Your task to perform on an android device: Open Youtube and go to "Your channel" Image 0: 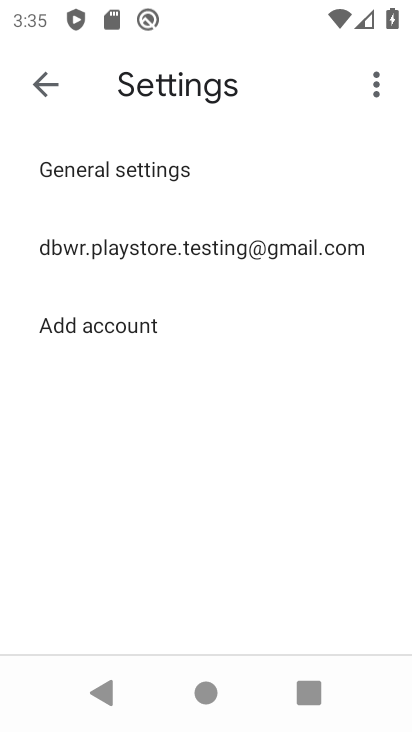
Step 0: press home button
Your task to perform on an android device: Open Youtube and go to "Your channel" Image 1: 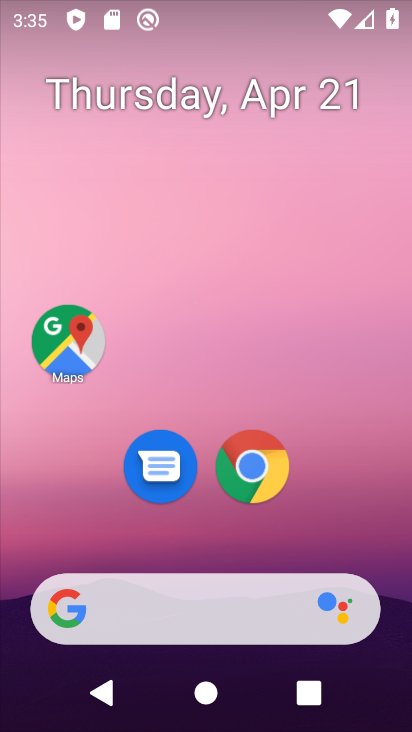
Step 1: drag from (229, 553) to (226, 160)
Your task to perform on an android device: Open Youtube and go to "Your channel" Image 2: 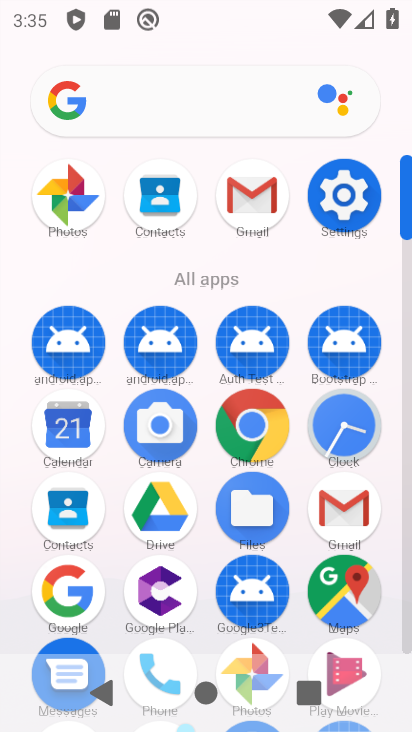
Step 2: drag from (199, 559) to (190, 136)
Your task to perform on an android device: Open Youtube and go to "Your channel" Image 3: 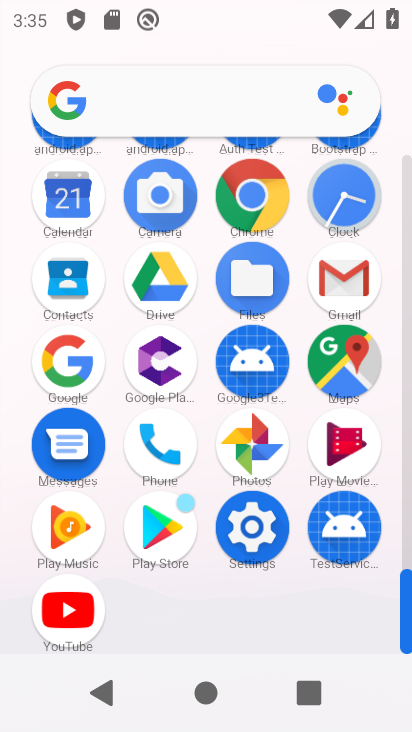
Step 3: click (83, 593)
Your task to perform on an android device: Open Youtube and go to "Your channel" Image 4: 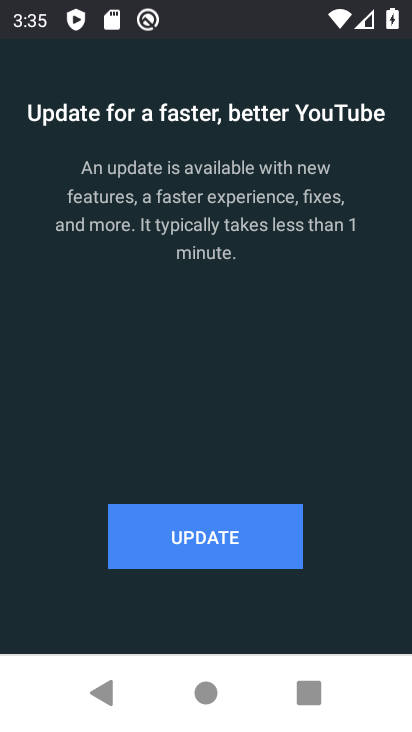
Step 4: click (142, 538)
Your task to perform on an android device: Open Youtube and go to "Your channel" Image 5: 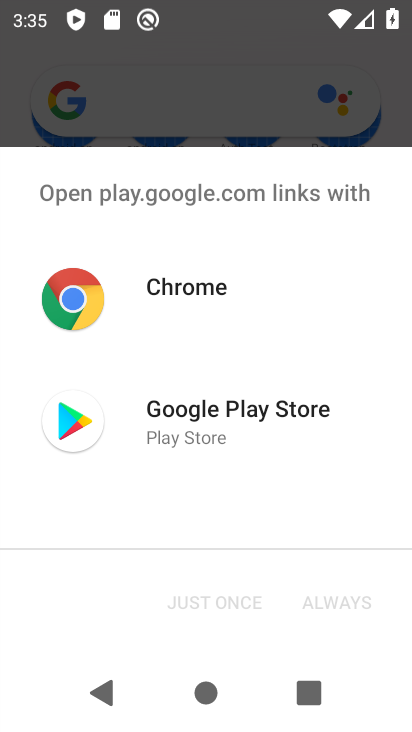
Step 5: click (221, 409)
Your task to perform on an android device: Open Youtube and go to "Your channel" Image 6: 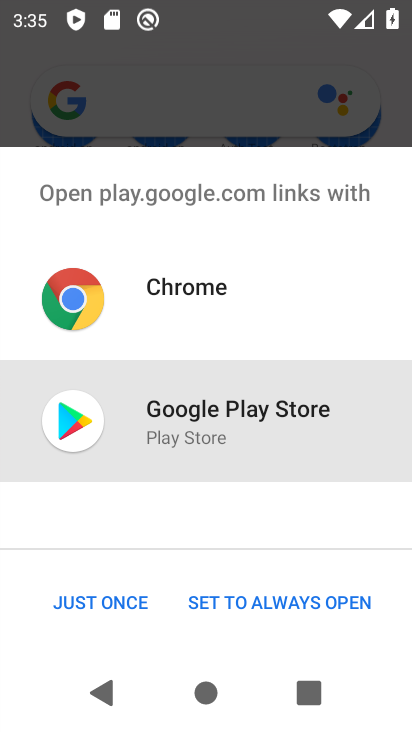
Step 6: click (141, 603)
Your task to perform on an android device: Open Youtube and go to "Your channel" Image 7: 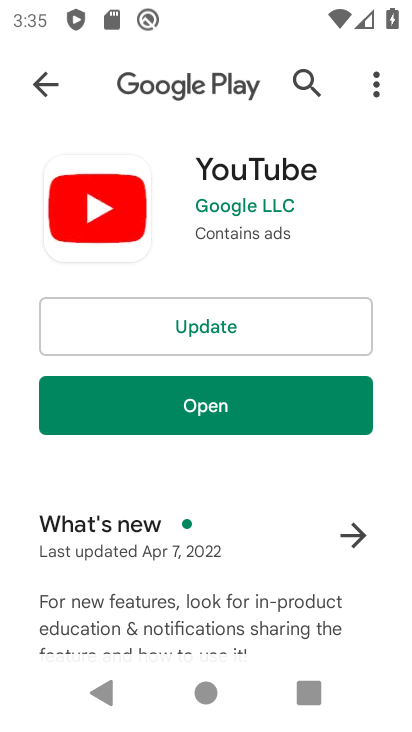
Step 7: click (224, 336)
Your task to perform on an android device: Open Youtube and go to "Your channel" Image 8: 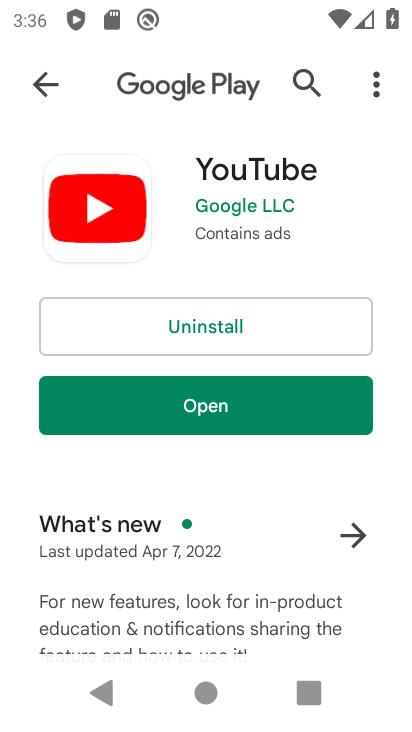
Step 8: click (211, 403)
Your task to perform on an android device: Open Youtube and go to "Your channel" Image 9: 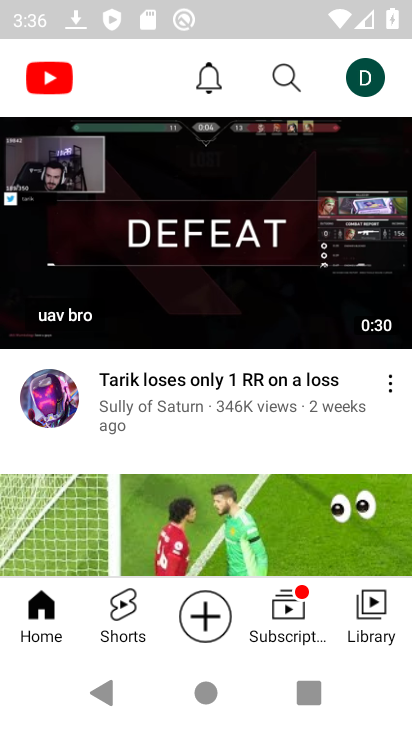
Step 9: click (360, 70)
Your task to perform on an android device: Open Youtube and go to "Your channel" Image 10: 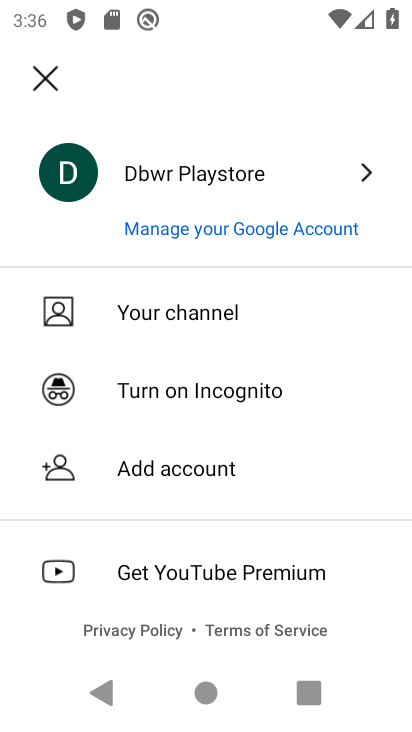
Step 10: click (212, 302)
Your task to perform on an android device: Open Youtube and go to "Your channel" Image 11: 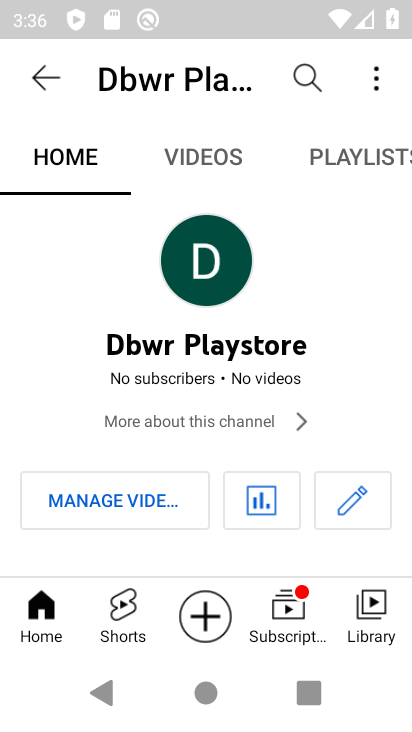
Step 11: task complete